Your task to perform on an android device: Search for vegetarian restaurants on Maps Image 0: 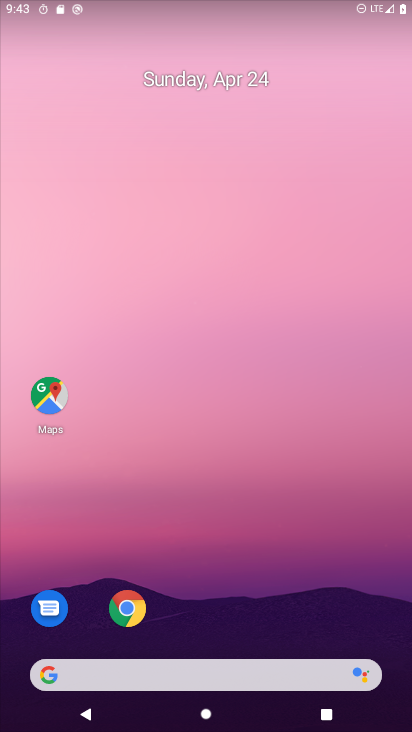
Step 0: click (49, 396)
Your task to perform on an android device: Search for vegetarian restaurants on Maps Image 1: 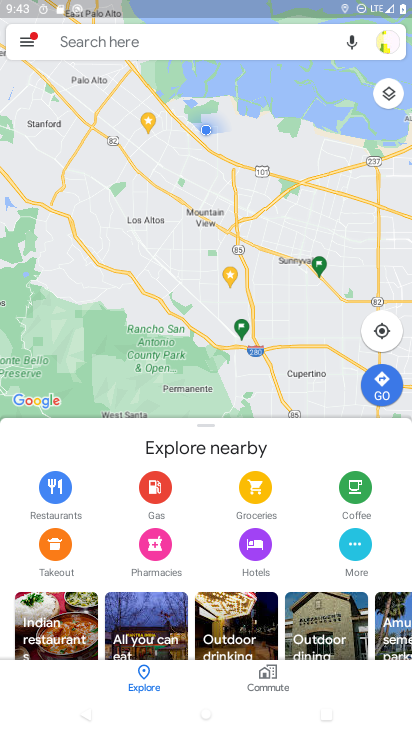
Step 1: click (211, 37)
Your task to perform on an android device: Search for vegetarian restaurants on Maps Image 2: 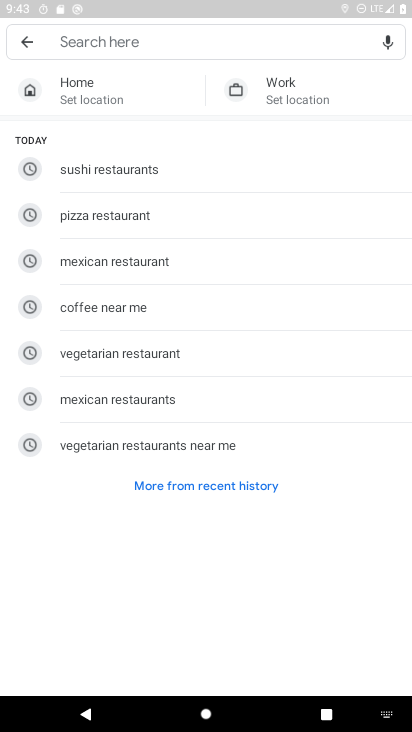
Step 2: click (158, 346)
Your task to perform on an android device: Search for vegetarian restaurants on Maps Image 3: 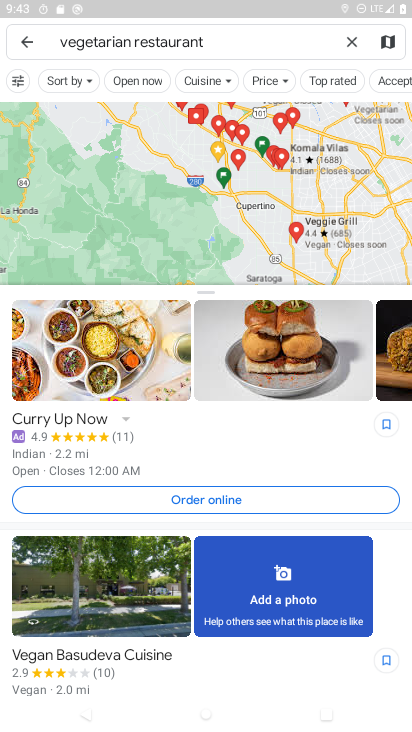
Step 3: task complete